Your task to perform on an android device: Open Google Chrome and click the shortcut for Amazon.com Image 0: 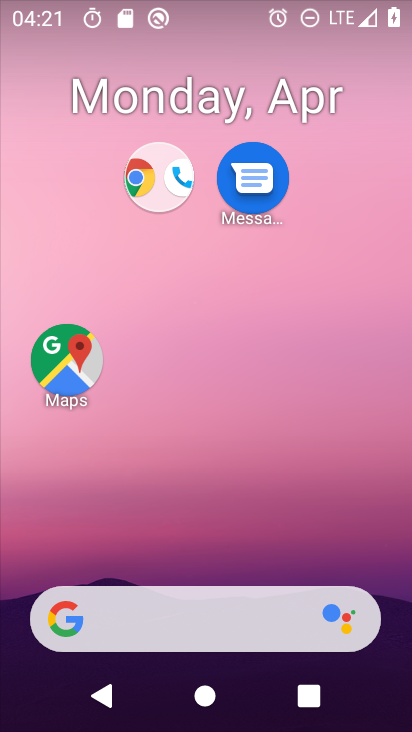
Step 0: drag from (268, 481) to (195, 5)
Your task to perform on an android device: Open Google Chrome and click the shortcut for Amazon.com Image 1: 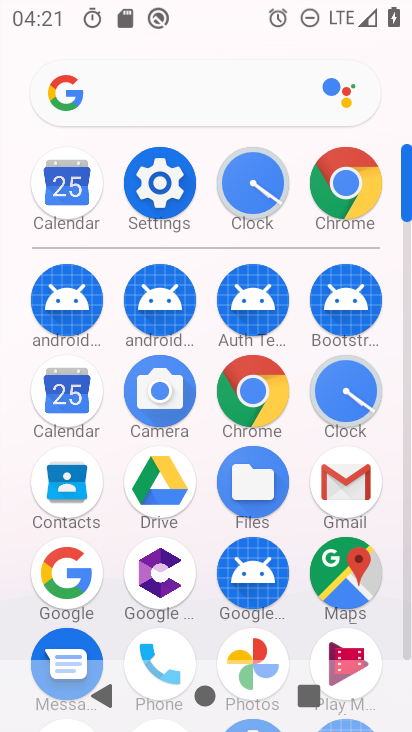
Step 1: drag from (284, 648) to (310, 151)
Your task to perform on an android device: Open Google Chrome and click the shortcut for Amazon.com Image 2: 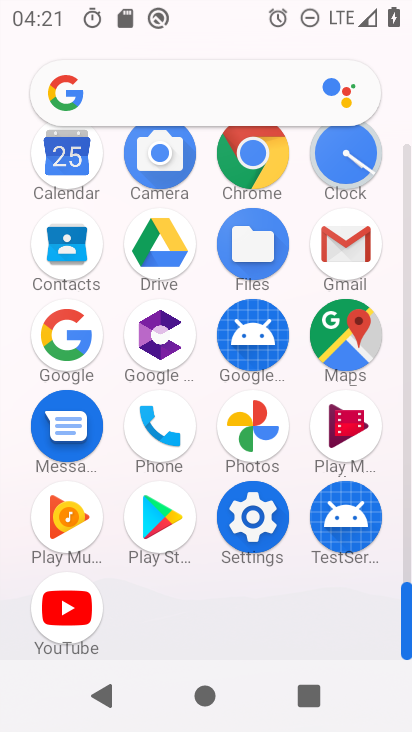
Step 2: click (251, 152)
Your task to perform on an android device: Open Google Chrome and click the shortcut for Amazon.com Image 3: 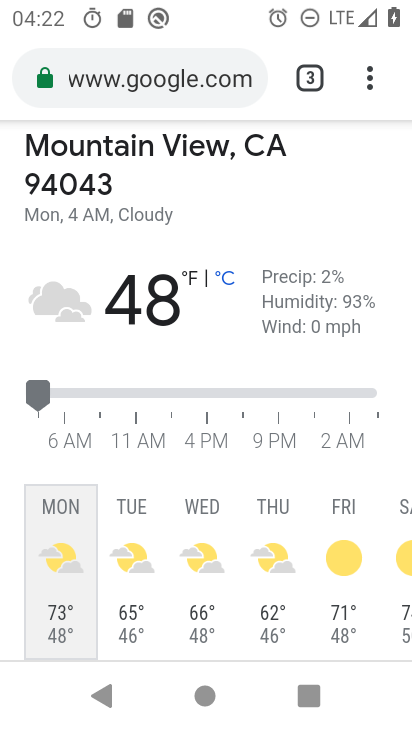
Step 3: click (361, 76)
Your task to perform on an android device: Open Google Chrome and click the shortcut for Amazon.com Image 4: 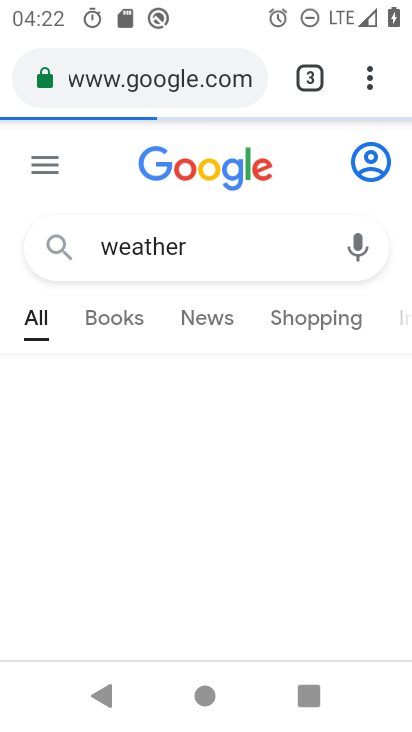
Step 4: drag from (361, 76) to (194, 254)
Your task to perform on an android device: Open Google Chrome and click the shortcut for Amazon.com Image 5: 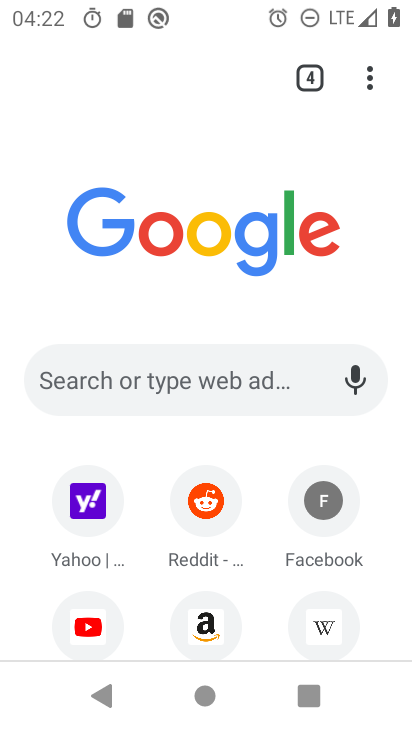
Step 5: drag from (270, 615) to (256, 208)
Your task to perform on an android device: Open Google Chrome and click the shortcut for Amazon.com Image 6: 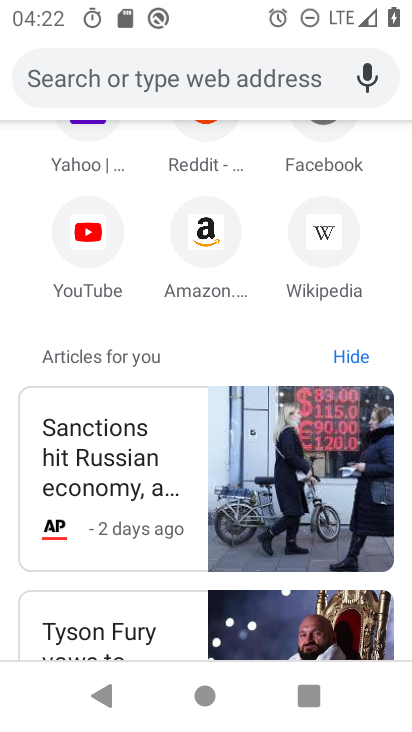
Step 6: click (201, 222)
Your task to perform on an android device: Open Google Chrome and click the shortcut for Amazon.com Image 7: 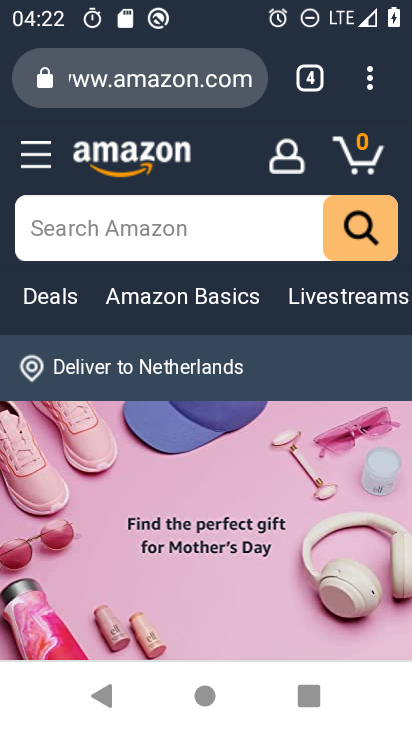
Step 7: task complete